Your task to perform on an android device: delete location history Image 0: 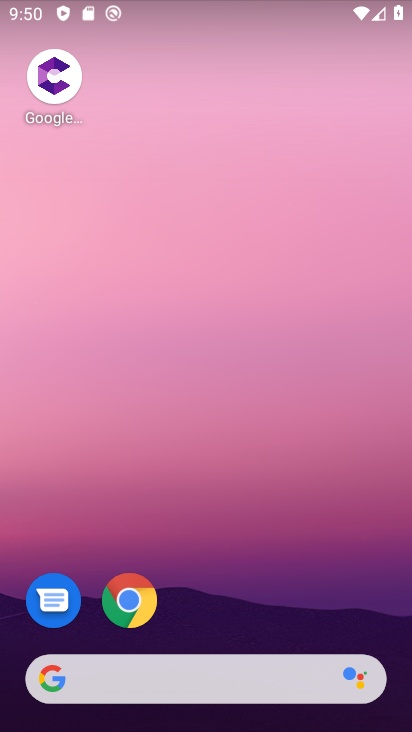
Step 0: drag from (128, 725) to (78, 43)
Your task to perform on an android device: delete location history Image 1: 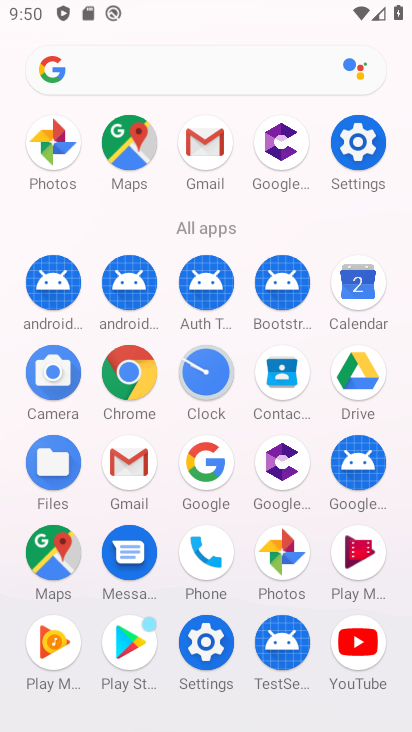
Step 1: click (373, 161)
Your task to perform on an android device: delete location history Image 2: 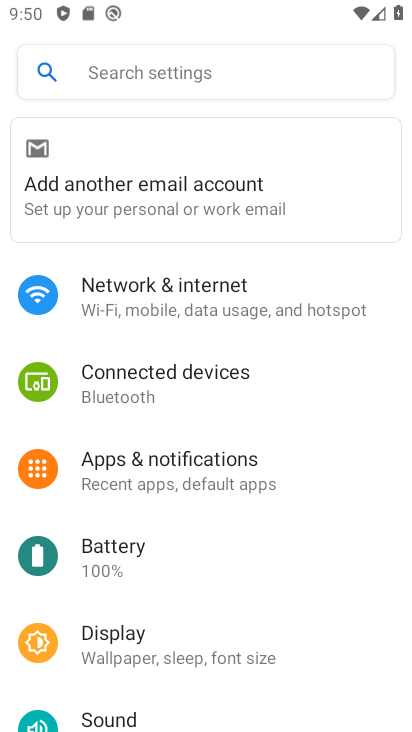
Step 2: drag from (347, 689) to (326, 231)
Your task to perform on an android device: delete location history Image 3: 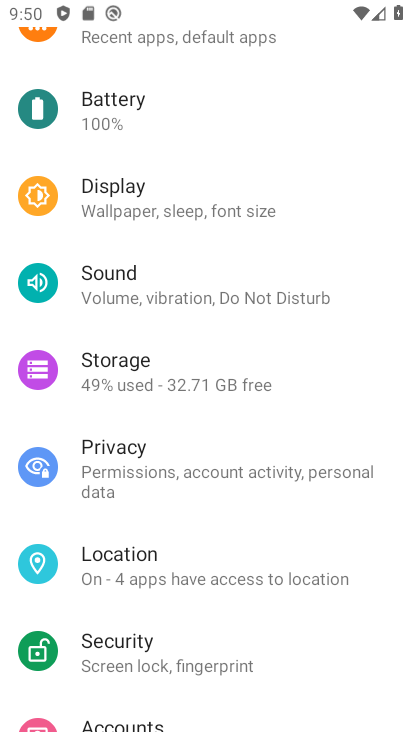
Step 3: click (162, 565)
Your task to perform on an android device: delete location history Image 4: 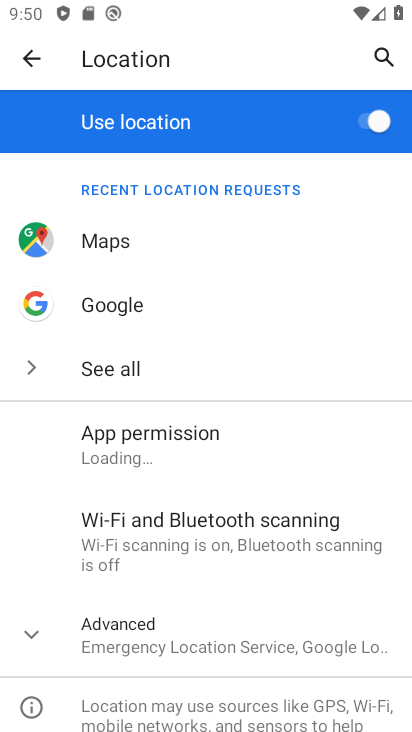
Step 4: click (213, 645)
Your task to perform on an android device: delete location history Image 5: 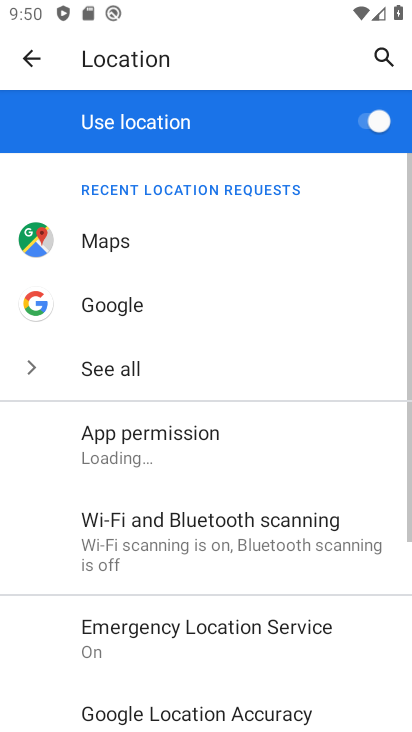
Step 5: drag from (232, 641) to (236, 295)
Your task to perform on an android device: delete location history Image 6: 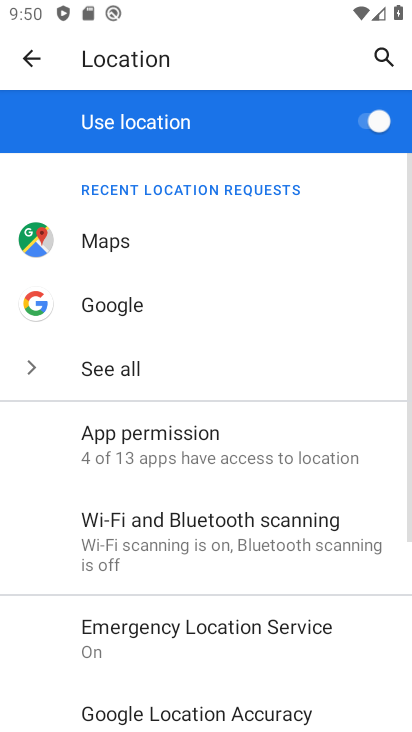
Step 6: drag from (368, 625) to (353, 337)
Your task to perform on an android device: delete location history Image 7: 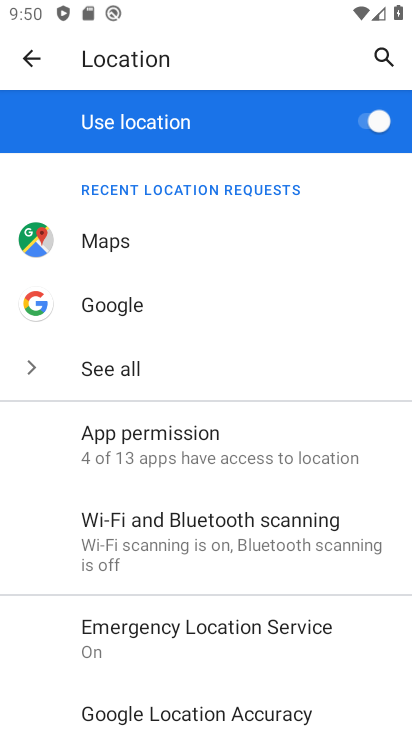
Step 7: drag from (341, 715) to (337, 262)
Your task to perform on an android device: delete location history Image 8: 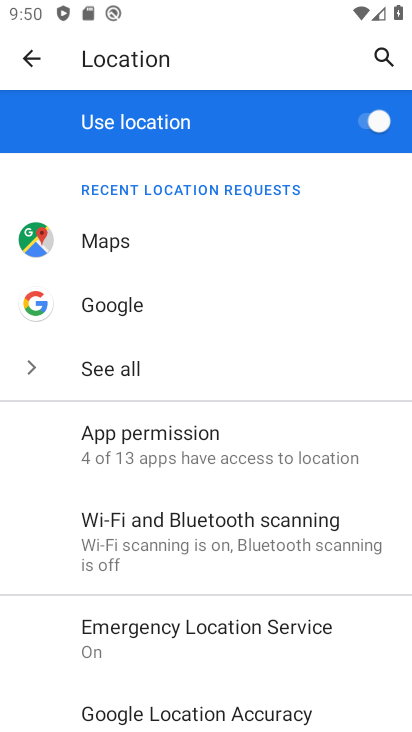
Step 8: drag from (57, 682) to (69, 226)
Your task to perform on an android device: delete location history Image 9: 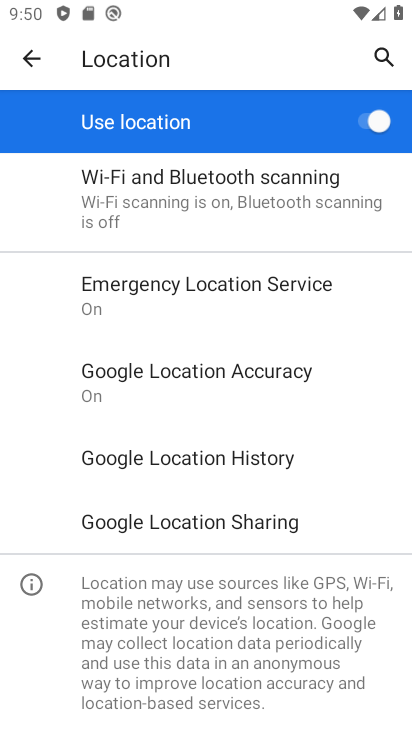
Step 9: click (268, 458)
Your task to perform on an android device: delete location history Image 10: 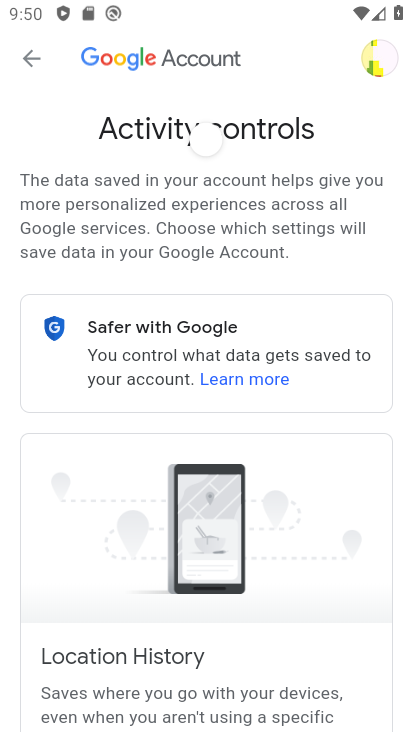
Step 10: drag from (346, 635) to (348, 372)
Your task to perform on an android device: delete location history Image 11: 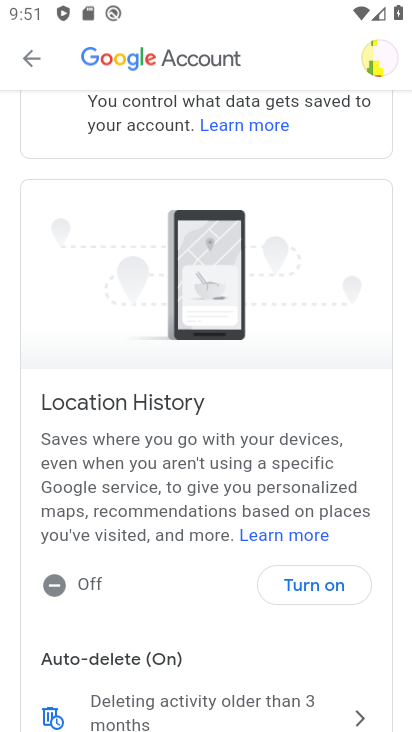
Step 11: click (231, 705)
Your task to perform on an android device: delete location history Image 12: 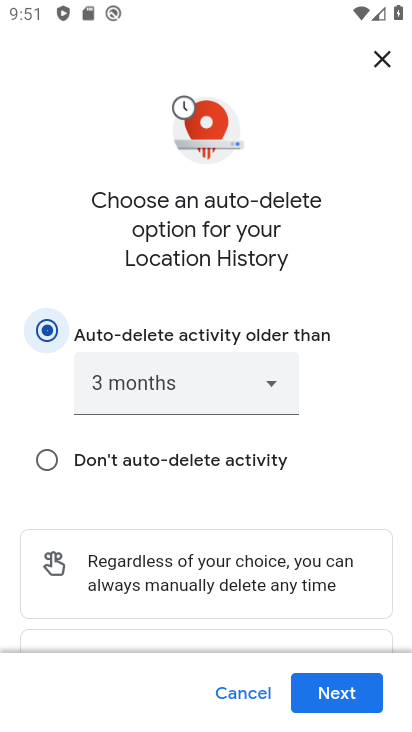
Step 12: click (324, 690)
Your task to perform on an android device: delete location history Image 13: 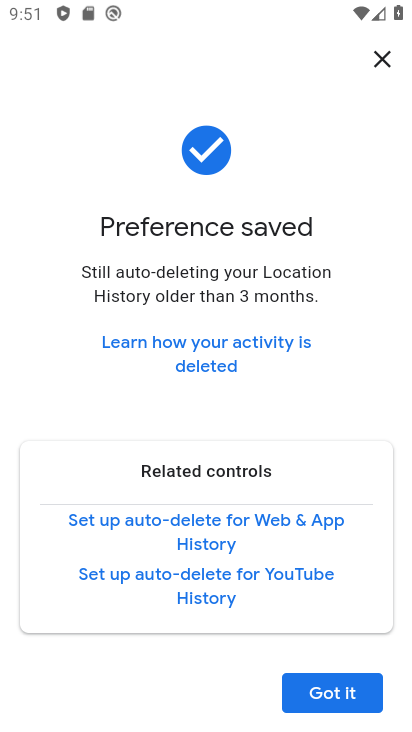
Step 13: click (337, 708)
Your task to perform on an android device: delete location history Image 14: 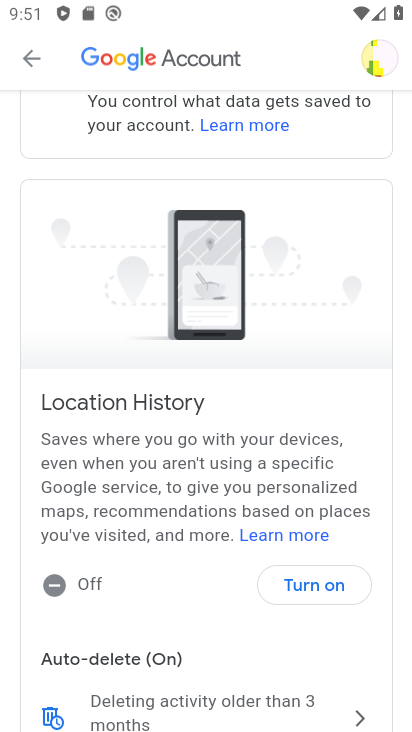
Step 14: task complete